Your task to perform on an android device: Do I have any events tomorrow? Image 0: 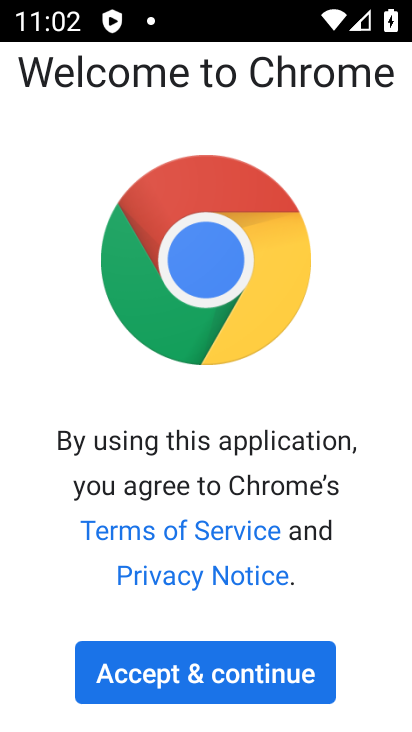
Step 0: press home button
Your task to perform on an android device: Do I have any events tomorrow? Image 1: 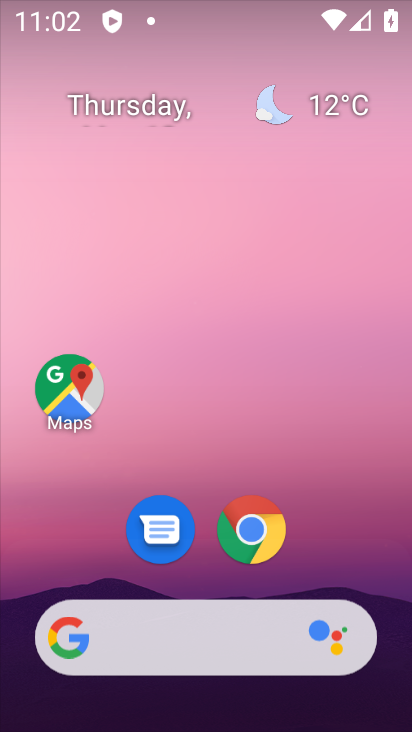
Step 1: drag from (314, 518) to (365, 247)
Your task to perform on an android device: Do I have any events tomorrow? Image 2: 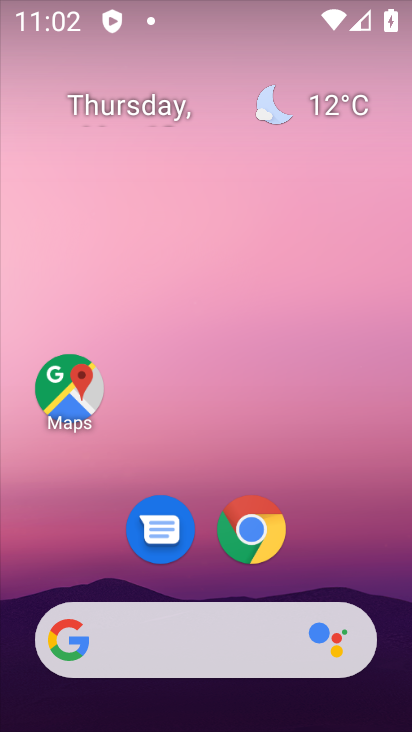
Step 2: drag from (280, 497) to (329, 243)
Your task to perform on an android device: Do I have any events tomorrow? Image 3: 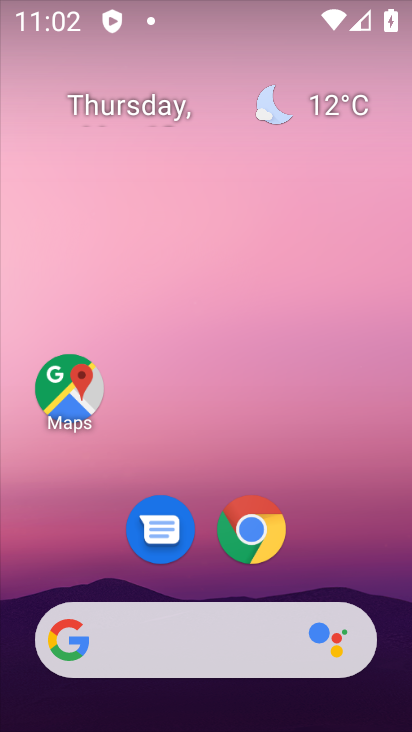
Step 3: drag from (294, 569) to (276, 237)
Your task to perform on an android device: Do I have any events tomorrow? Image 4: 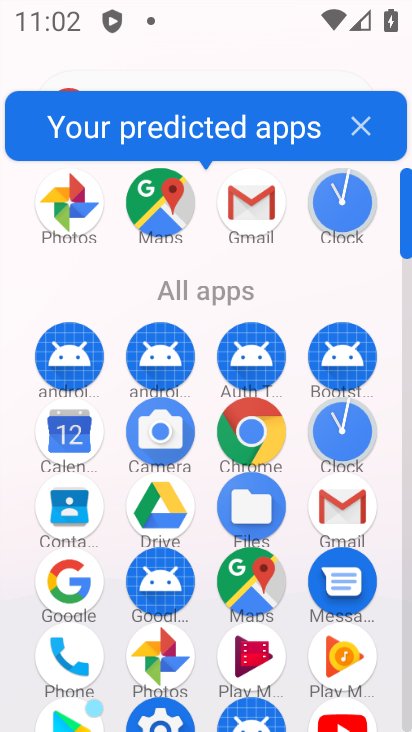
Step 4: click (81, 425)
Your task to perform on an android device: Do I have any events tomorrow? Image 5: 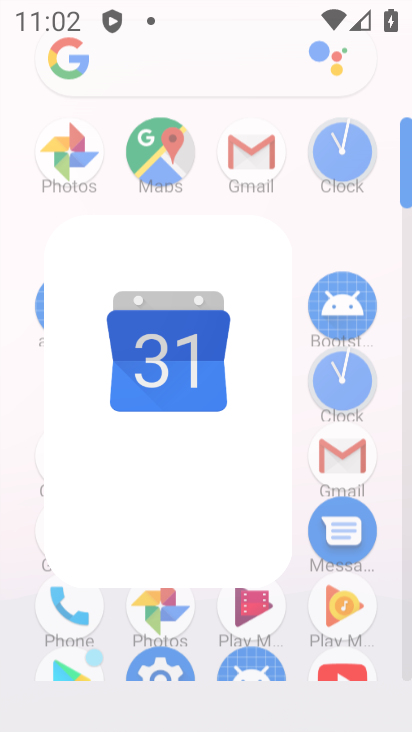
Step 5: click (64, 432)
Your task to perform on an android device: Do I have any events tomorrow? Image 6: 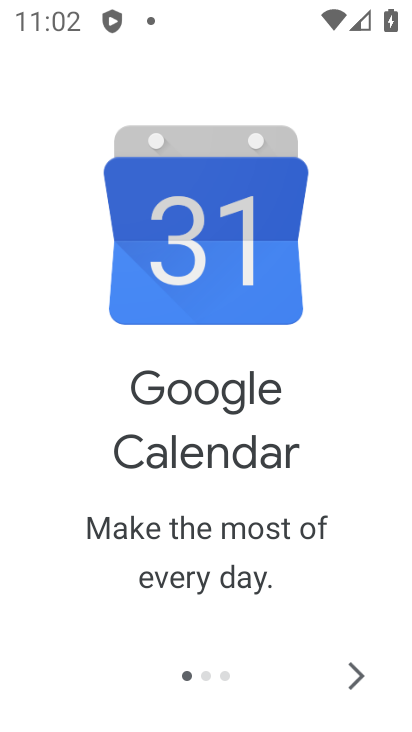
Step 6: click (327, 673)
Your task to perform on an android device: Do I have any events tomorrow? Image 7: 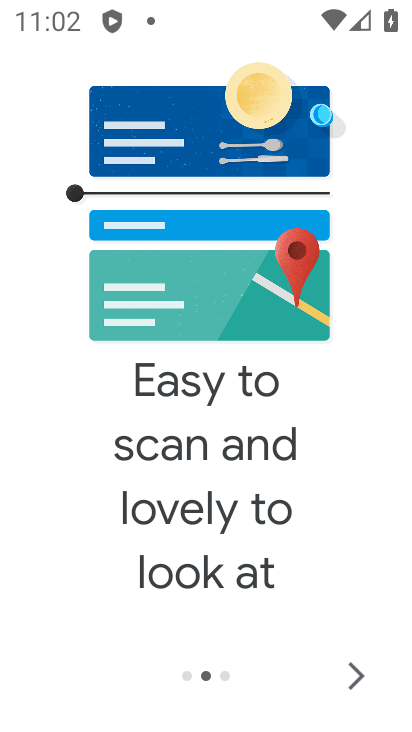
Step 7: click (327, 674)
Your task to perform on an android device: Do I have any events tomorrow? Image 8: 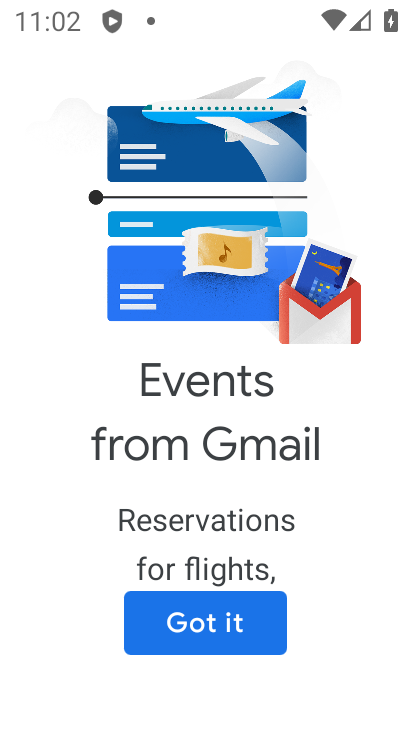
Step 8: click (327, 674)
Your task to perform on an android device: Do I have any events tomorrow? Image 9: 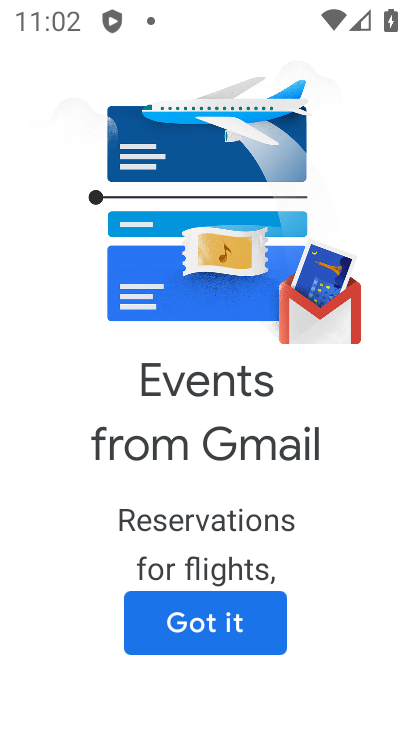
Step 9: click (222, 610)
Your task to perform on an android device: Do I have any events tomorrow? Image 10: 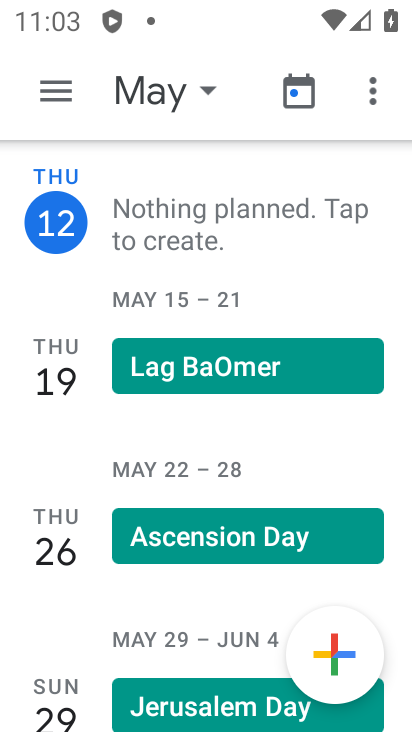
Step 10: click (48, 81)
Your task to perform on an android device: Do I have any events tomorrow? Image 11: 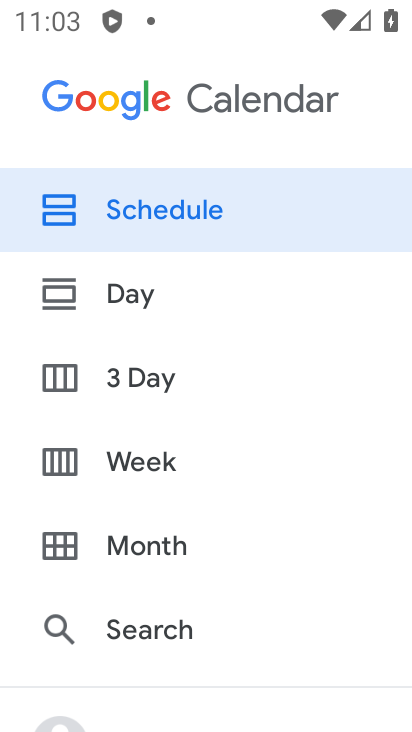
Step 11: click (154, 558)
Your task to perform on an android device: Do I have any events tomorrow? Image 12: 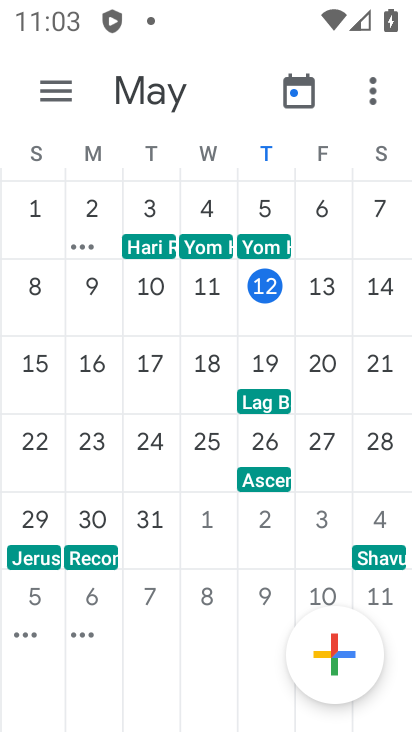
Step 12: click (317, 299)
Your task to perform on an android device: Do I have any events tomorrow? Image 13: 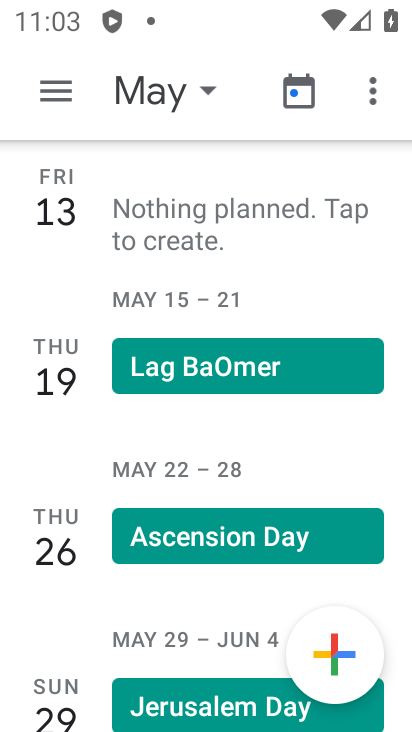
Step 13: task complete